Your task to perform on an android device: refresh tabs in the chrome app Image 0: 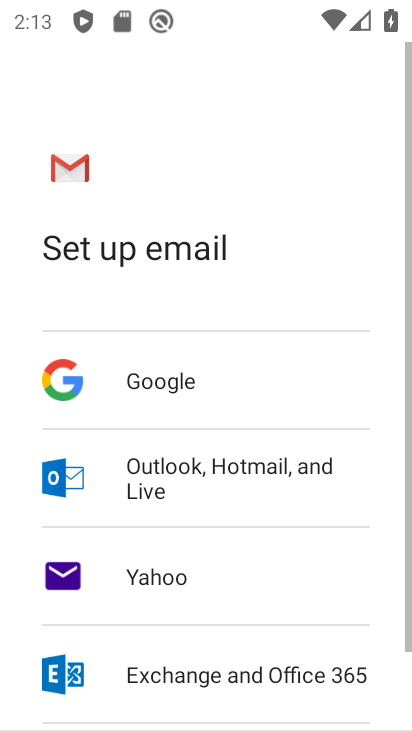
Step 0: press home button
Your task to perform on an android device: refresh tabs in the chrome app Image 1: 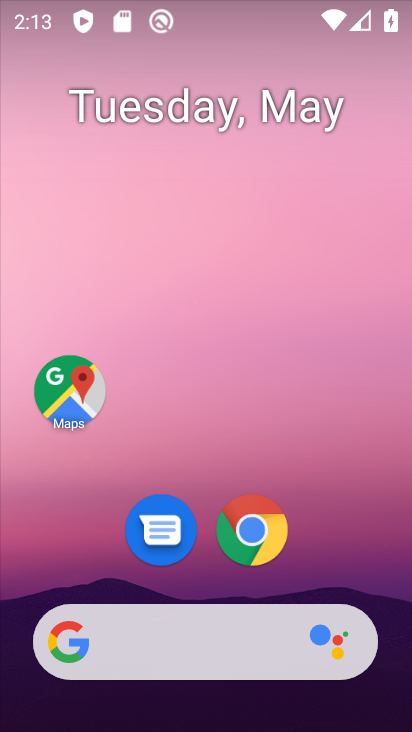
Step 1: click (246, 519)
Your task to perform on an android device: refresh tabs in the chrome app Image 2: 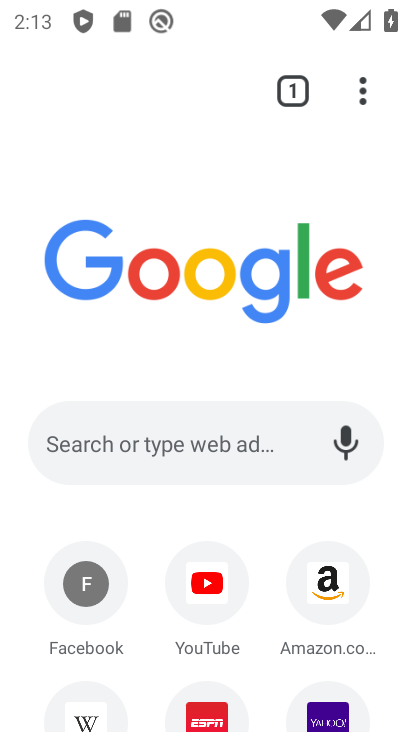
Step 2: click (368, 93)
Your task to perform on an android device: refresh tabs in the chrome app Image 3: 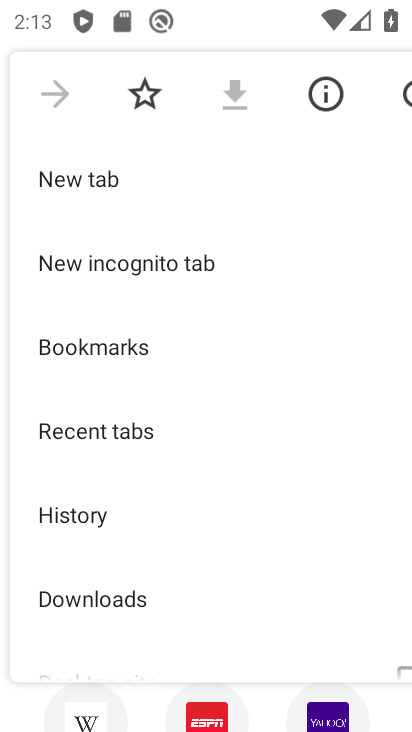
Step 3: click (402, 96)
Your task to perform on an android device: refresh tabs in the chrome app Image 4: 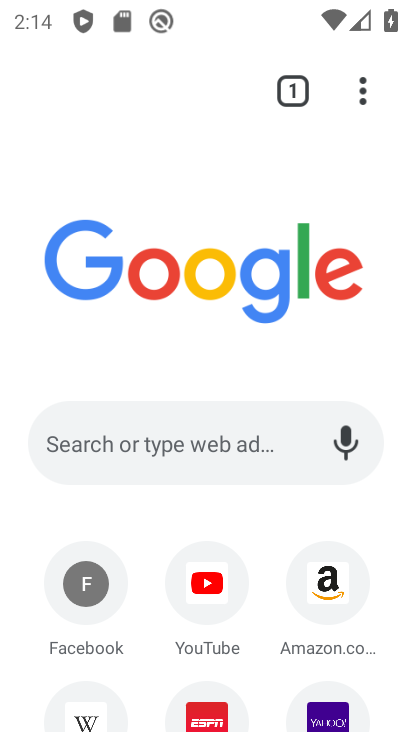
Step 4: task complete